Your task to perform on an android device: search for starred emails in the gmail app Image 0: 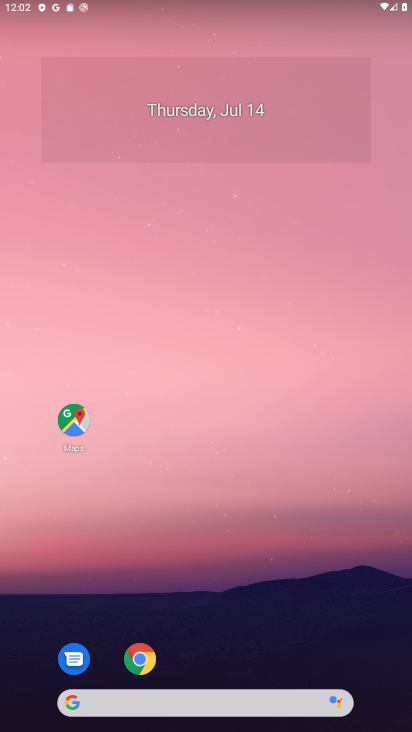
Step 0: drag from (118, 306) to (217, 58)
Your task to perform on an android device: search for starred emails in the gmail app Image 1: 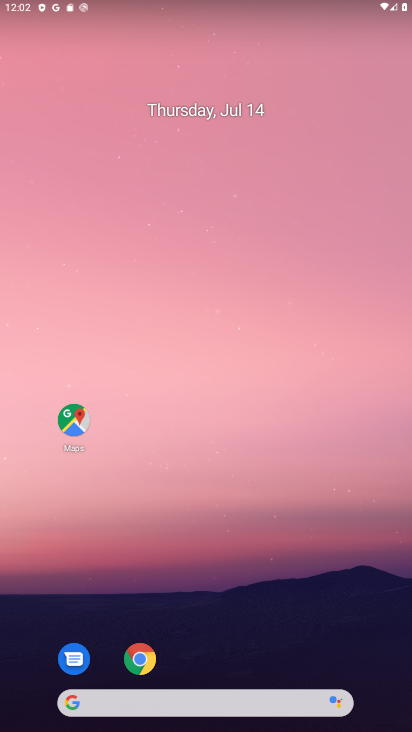
Step 1: drag from (172, 301) to (247, 109)
Your task to perform on an android device: search for starred emails in the gmail app Image 2: 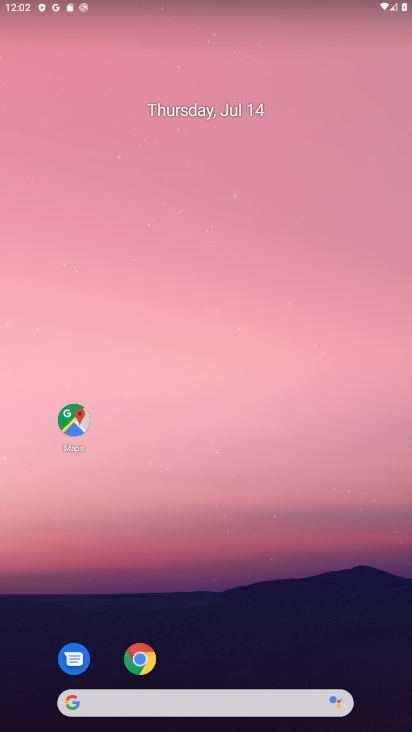
Step 2: drag from (35, 688) to (252, 122)
Your task to perform on an android device: search for starred emails in the gmail app Image 3: 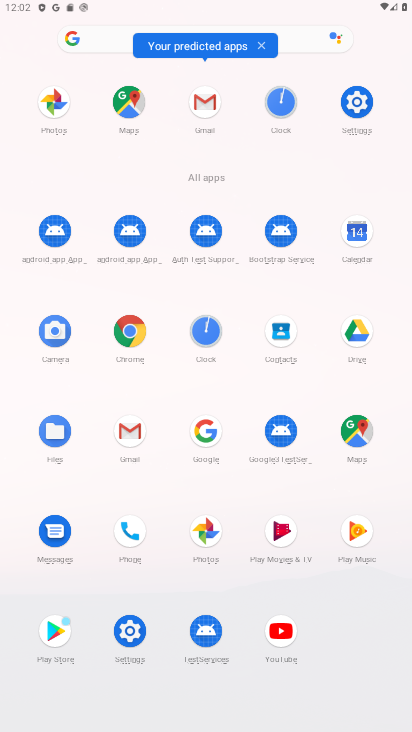
Step 3: click (211, 103)
Your task to perform on an android device: search for starred emails in the gmail app Image 4: 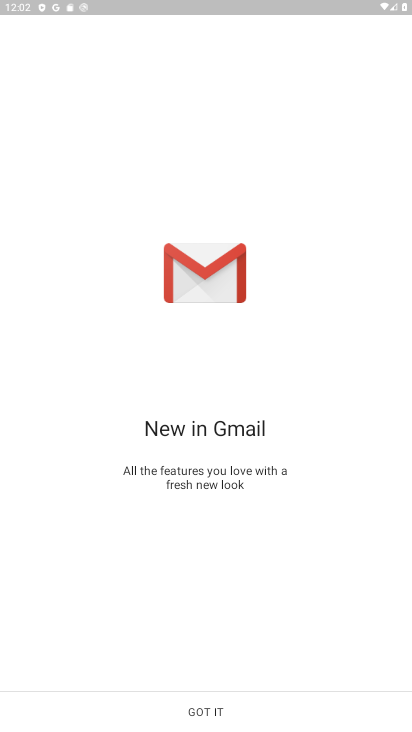
Step 4: click (196, 712)
Your task to perform on an android device: search for starred emails in the gmail app Image 5: 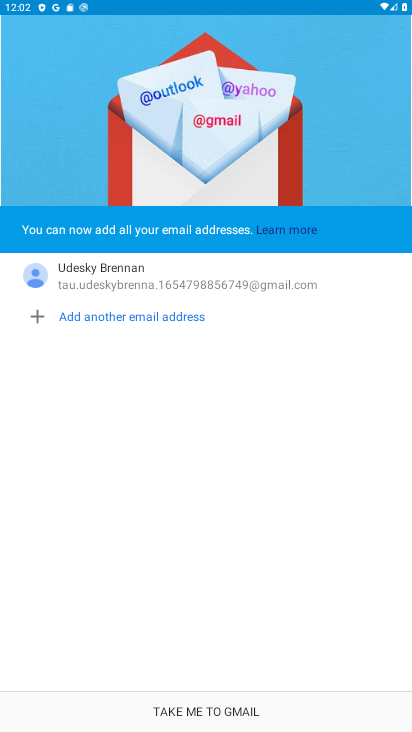
Step 5: click (215, 724)
Your task to perform on an android device: search for starred emails in the gmail app Image 6: 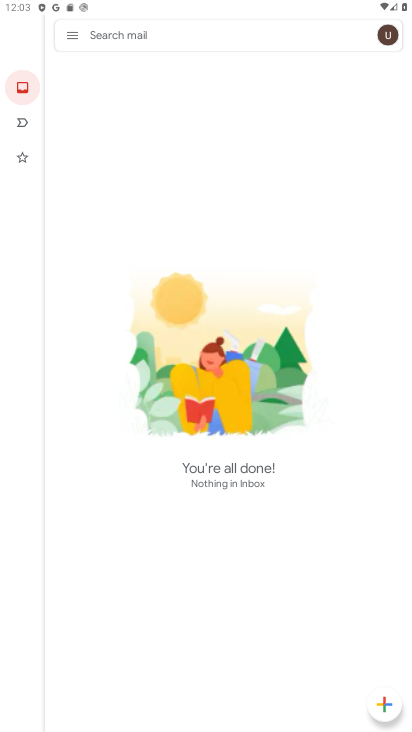
Step 6: task complete